Your task to perform on an android device: turn off wifi Image 0: 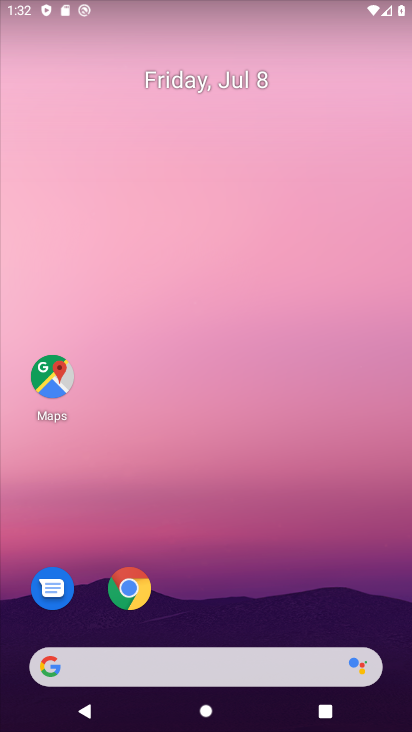
Step 0: press home button
Your task to perform on an android device: turn off wifi Image 1: 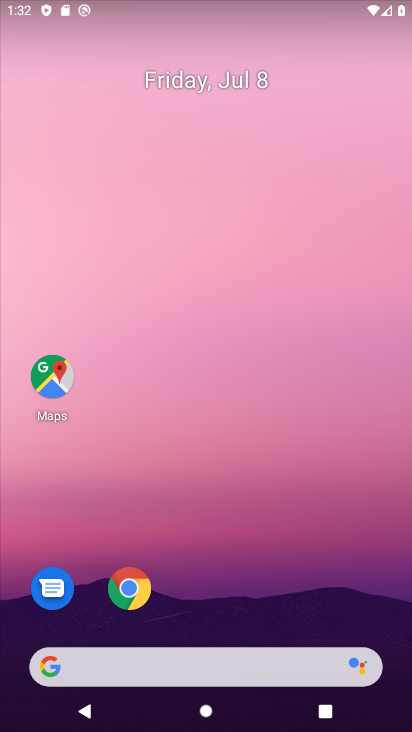
Step 1: drag from (277, 585) to (396, 149)
Your task to perform on an android device: turn off wifi Image 2: 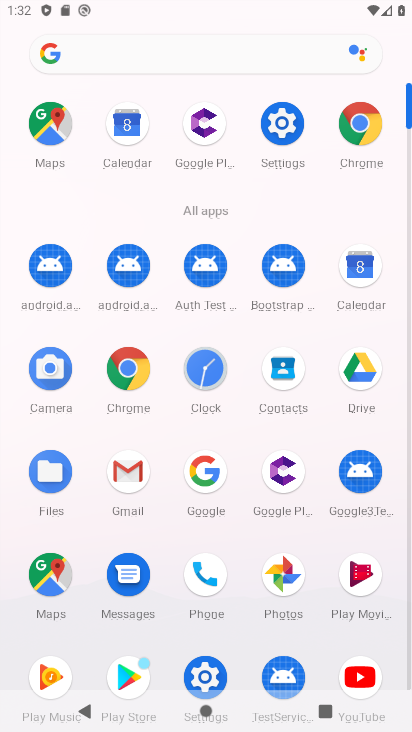
Step 2: click (286, 122)
Your task to perform on an android device: turn off wifi Image 3: 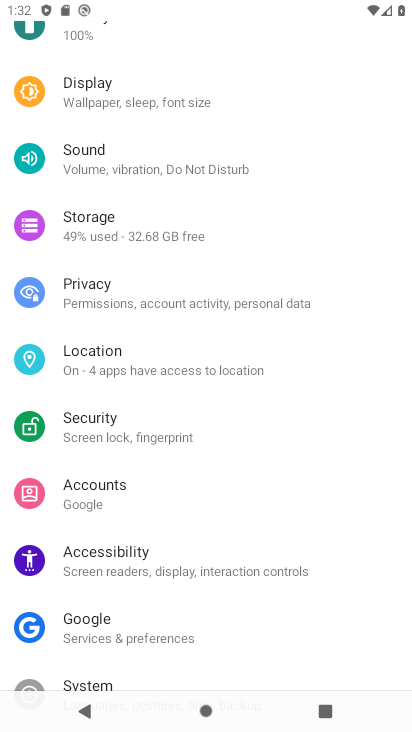
Step 3: drag from (136, 56) to (143, 523)
Your task to perform on an android device: turn off wifi Image 4: 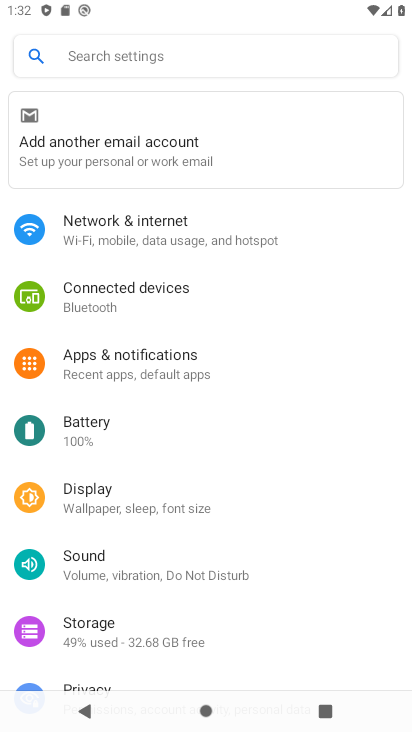
Step 4: click (190, 229)
Your task to perform on an android device: turn off wifi Image 5: 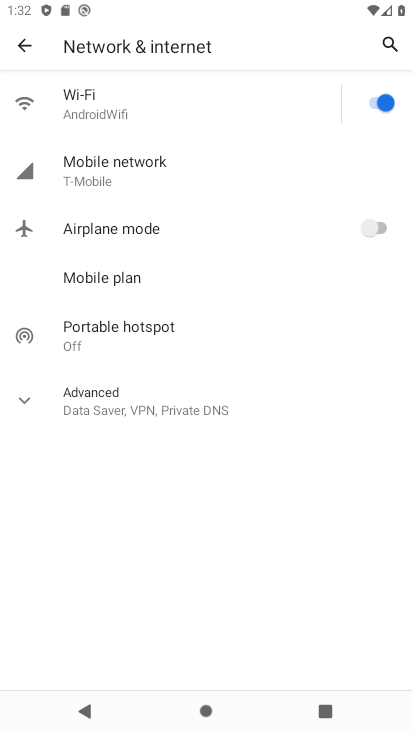
Step 5: click (382, 99)
Your task to perform on an android device: turn off wifi Image 6: 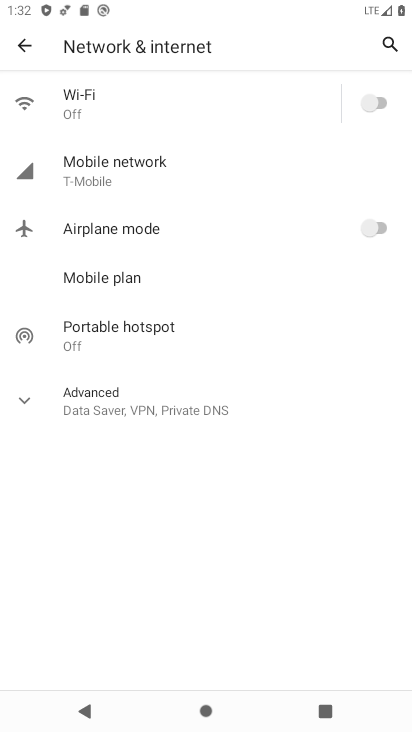
Step 6: task complete